Your task to perform on an android device: What's on my calendar tomorrow? Image 0: 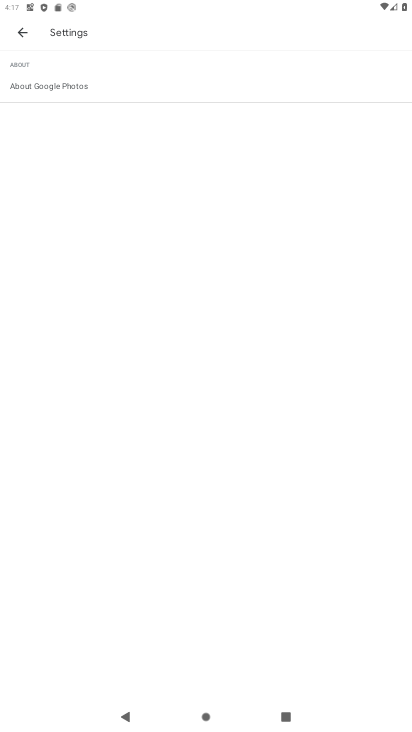
Step 0: press home button
Your task to perform on an android device: What's on my calendar tomorrow? Image 1: 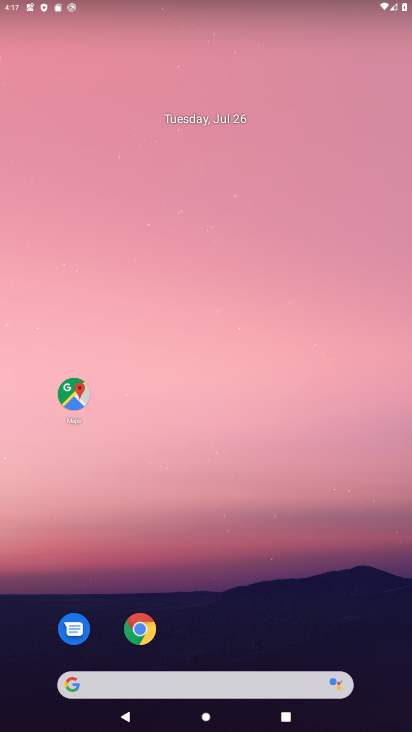
Step 1: drag from (263, 576) to (213, 0)
Your task to perform on an android device: What's on my calendar tomorrow? Image 2: 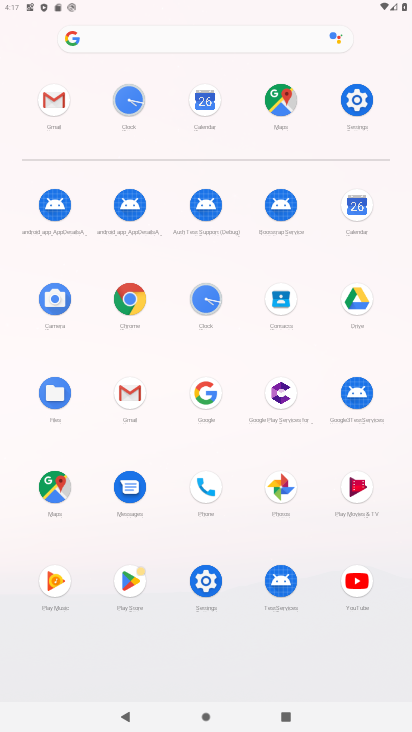
Step 2: click (359, 211)
Your task to perform on an android device: What's on my calendar tomorrow? Image 3: 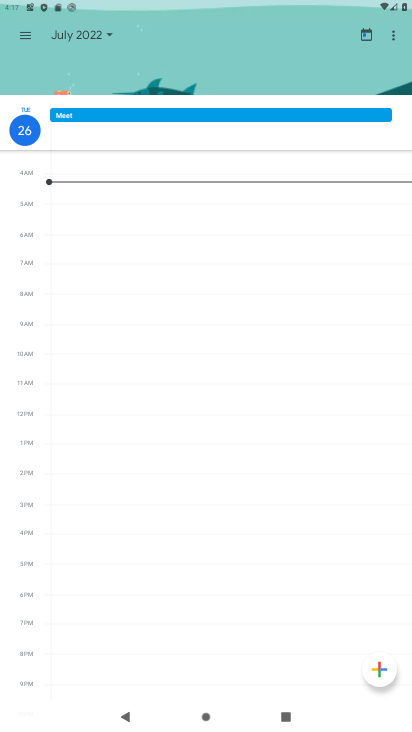
Step 3: click (86, 39)
Your task to perform on an android device: What's on my calendar tomorrow? Image 4: 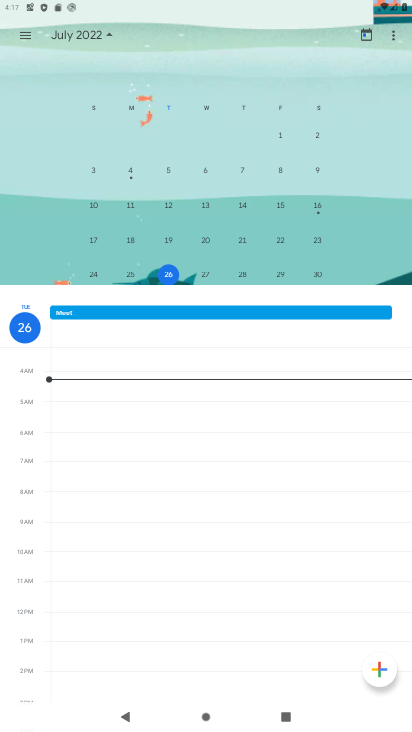
Step 4: click (208, 274)
Your task to perform on an android device: What's on my calendar tomorrow? Image 5: 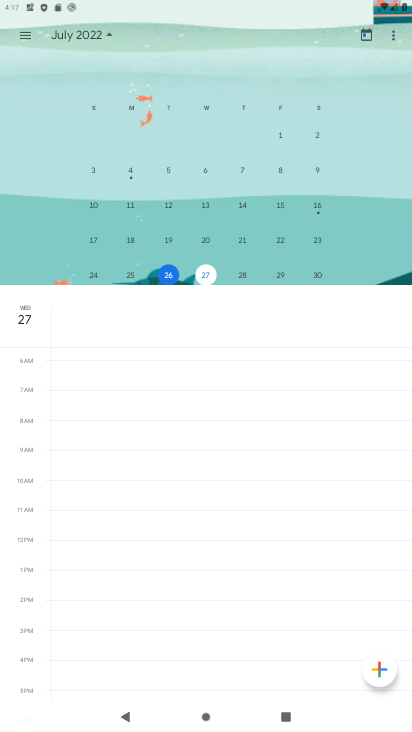
Step 5: task complete